Your task to perform on an android device: install app "Roku - Official Remote Control" Image 0: 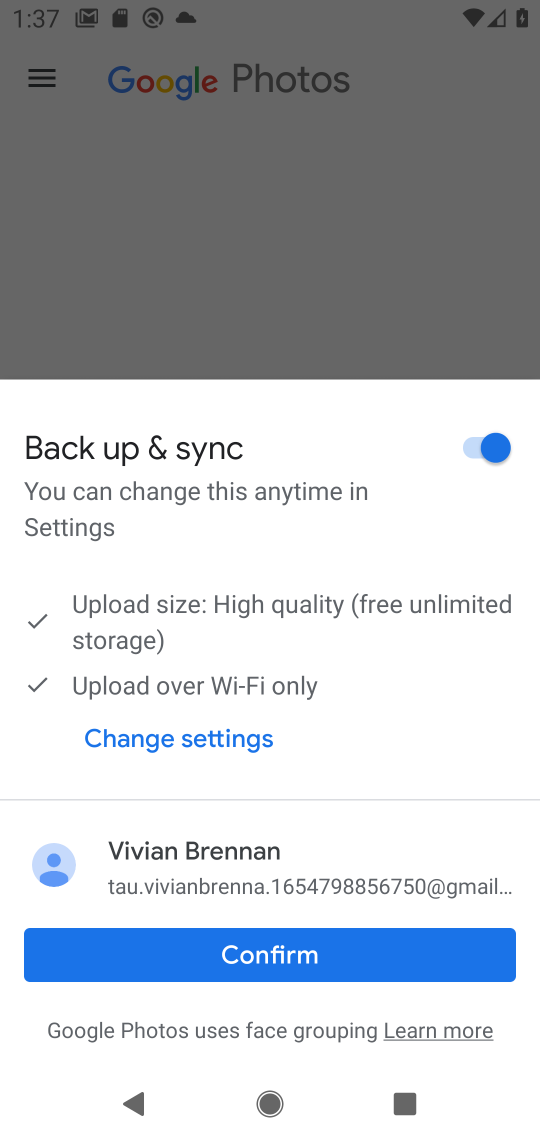
Step 0: press home button
Your task to perform on an android device: install app "Roku - Official Remote Control" Image 1: 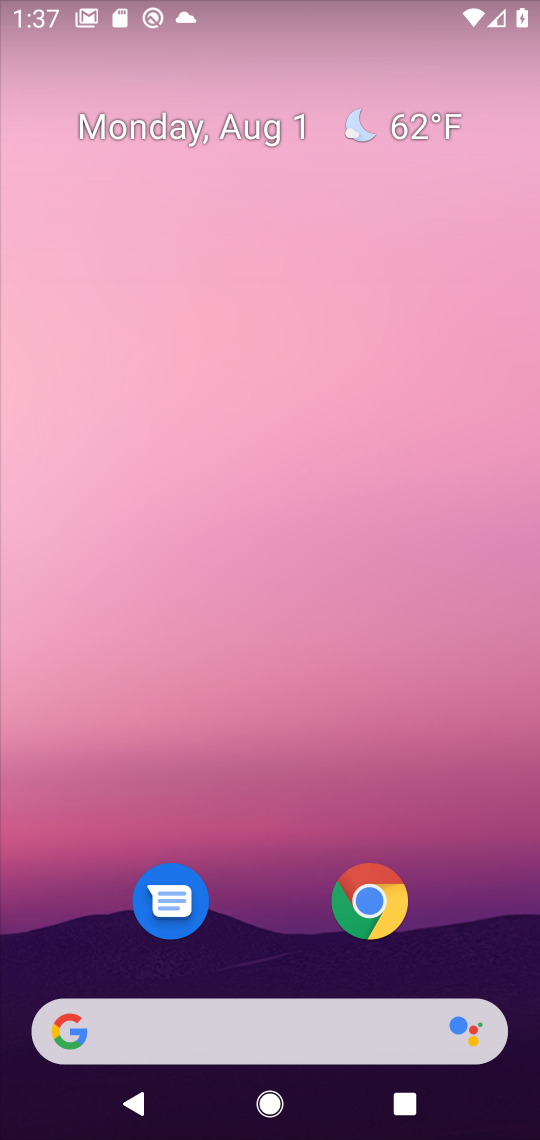
Step 1: drag from (273, 1031) to (276, 320)
Your task to perform on an android device: install app "Roku - Official Remote Control" Image 2: 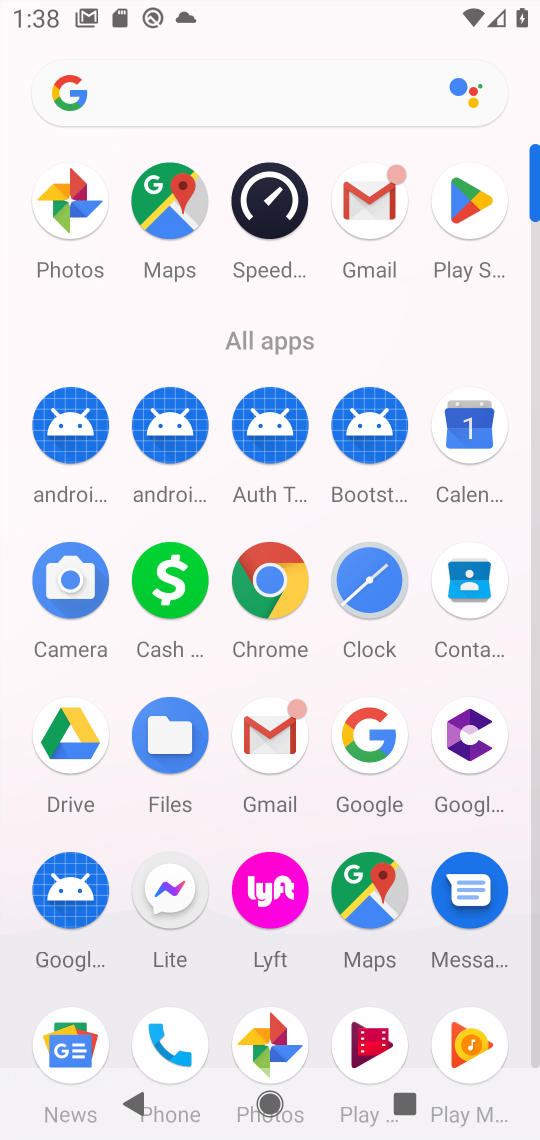
Step 2: click (487, 227)
Your task to perform on an android device: install app "Roku - Official Remote Control" Image 3: 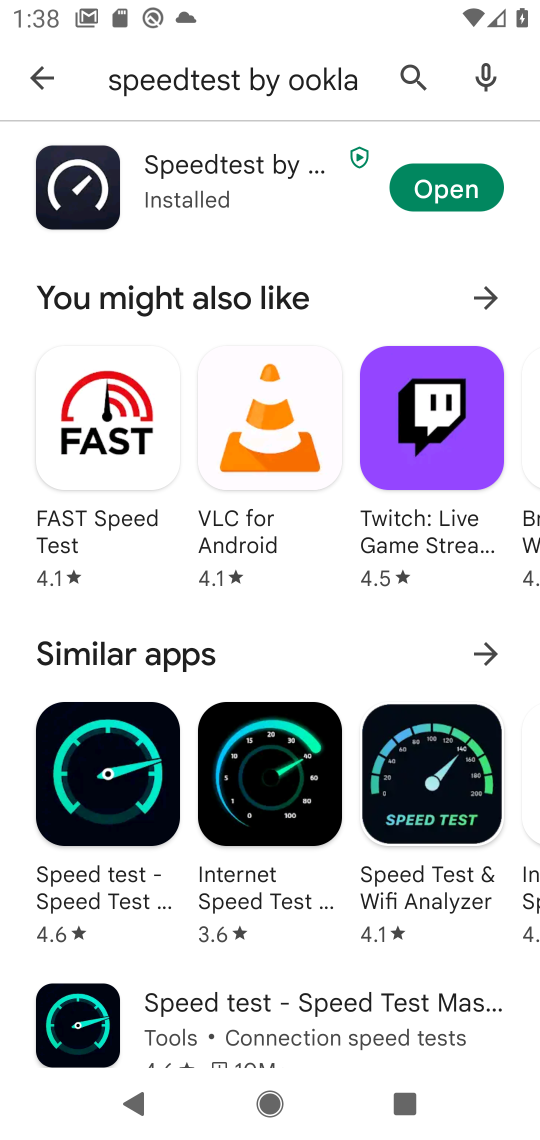
Step 3: click (420, 87)
Your task to perform on an android device: install app "Roku - Official Remote Control" Image 4: 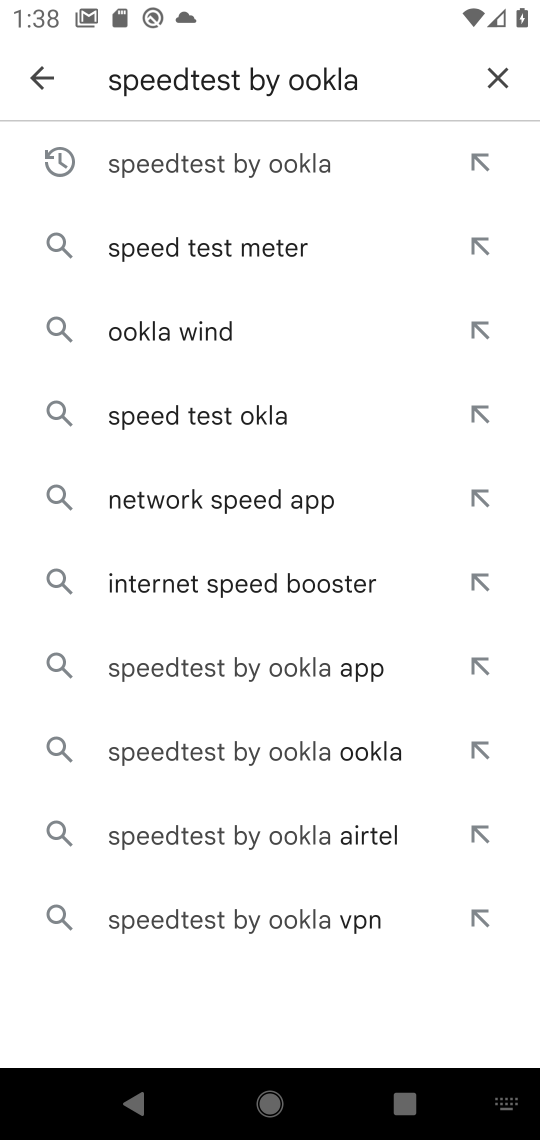
Step 4: click (505, 76)
Your task to perform on an android device: install app "Roku - Official Remote Control" Image 5: 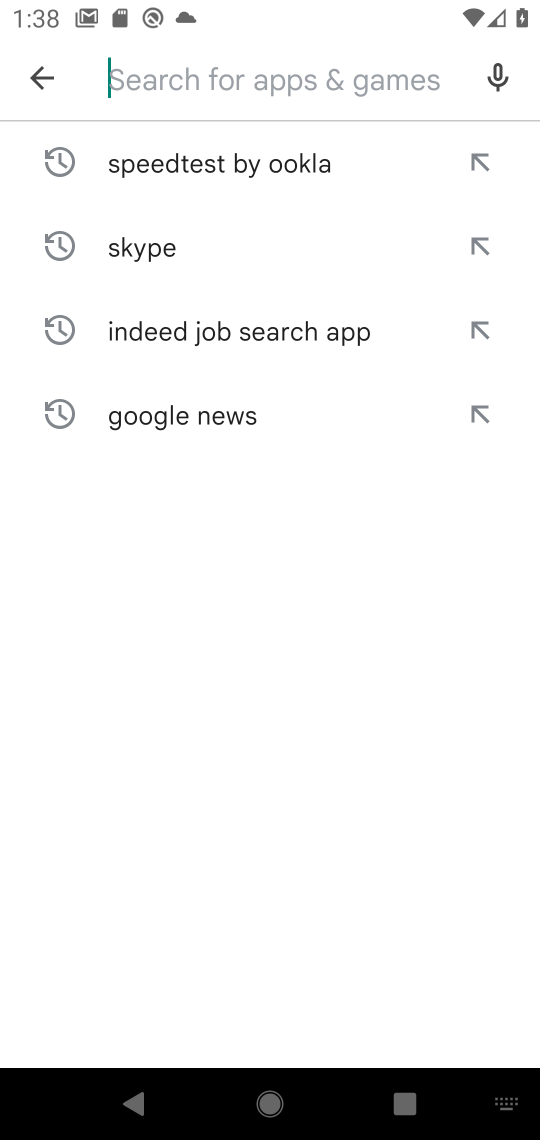
Step 5: type "Roku - Official Remote Control"
Your task to perform on an android device: install app "Roku - Official Remote Control" Image 6: 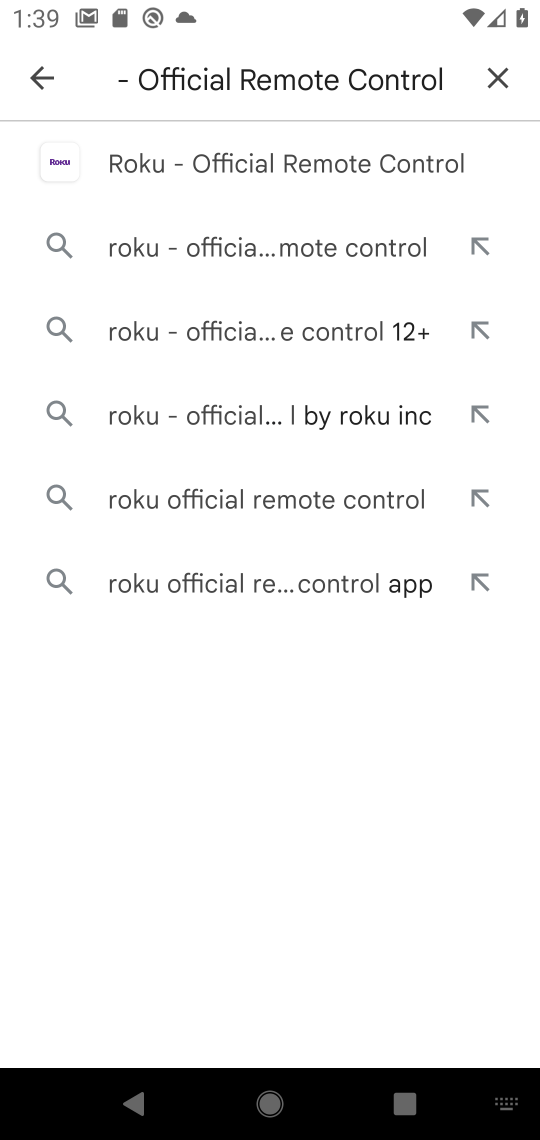
Step 6: click (251, 154)
Your task to perform on an android device: install app "Roku - Official Remote Control" Image 7: 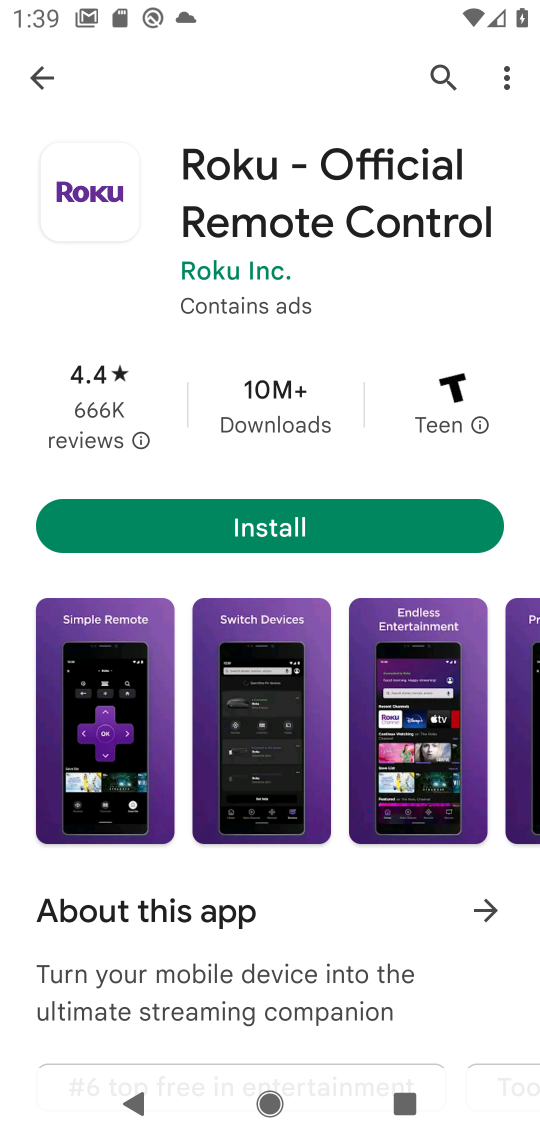
Step 7: click (349, 526)
Your task to perform on an android device: install app "Roku - Official Remote Control" Image 8: 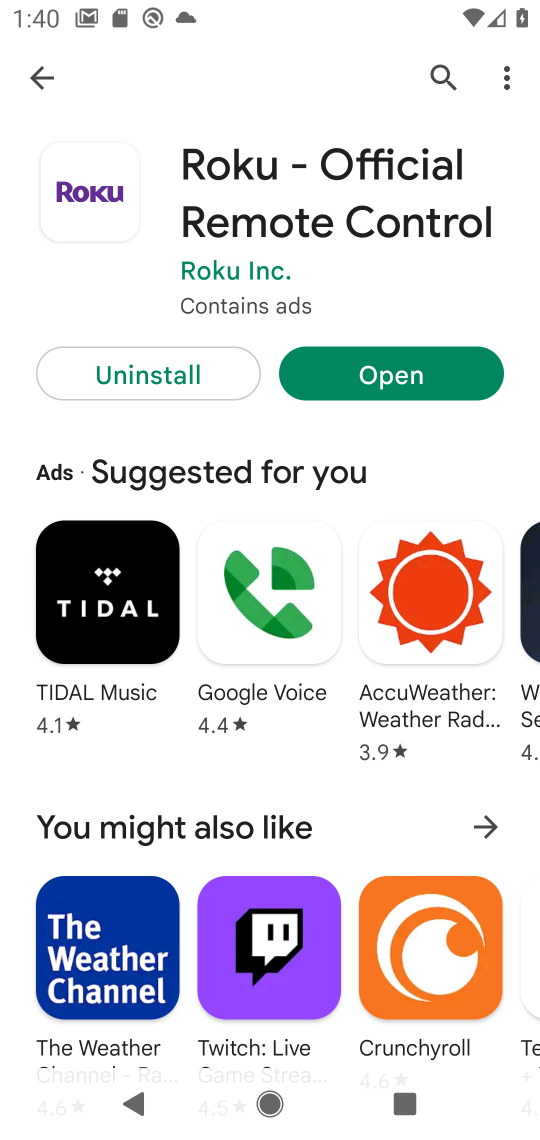
Step 8: task complete